Your task to perform on an android device: Open calendar and show me the fourth week of next month Image 0: 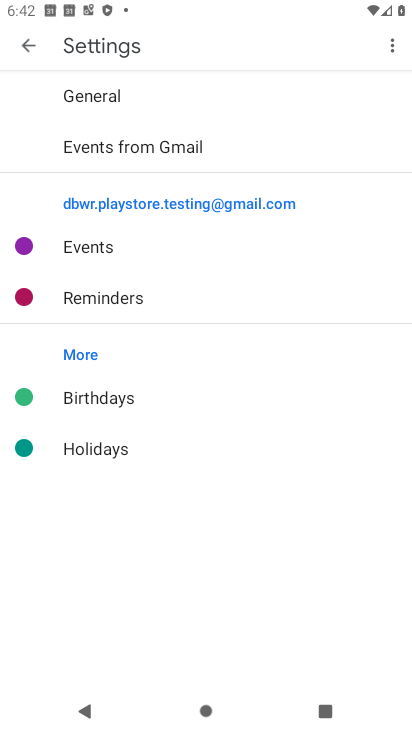
Step 0: press home button
Your task to perform on an android device: Open calendar and show me the fourth week of next month Image 1: 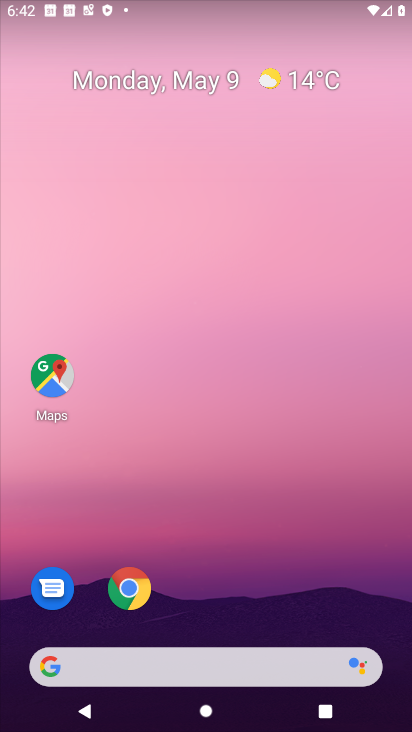
Step 1: drag from (253, 572) to (265, 6)
Your task to perform on an android device: Open calendar and show me the fourth week of next month Image 2: 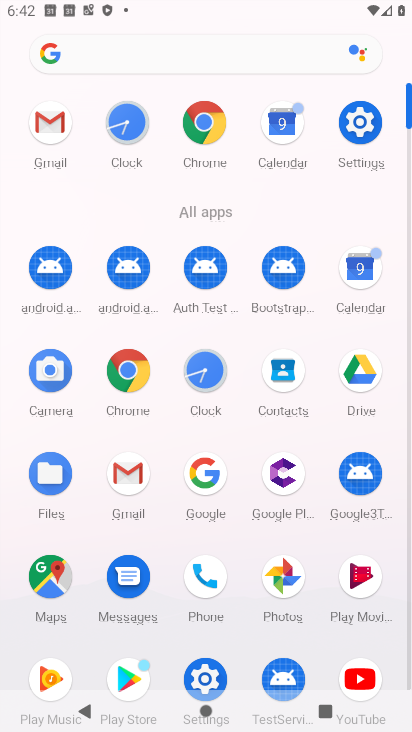
Step 2: click (361, 276)
Your task to perform on an android device: Open calendar and show me the fourth week of next month Image 3: 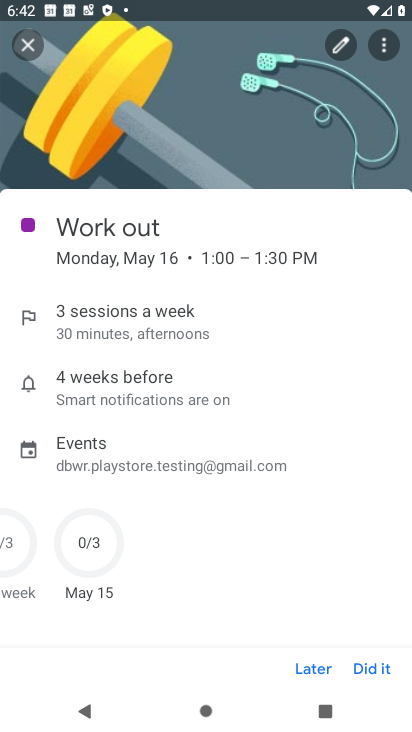
Step 3: click (81, 706)
Your task to perform on an android device: Open calendar and show me the fourth week of next month Image 4: 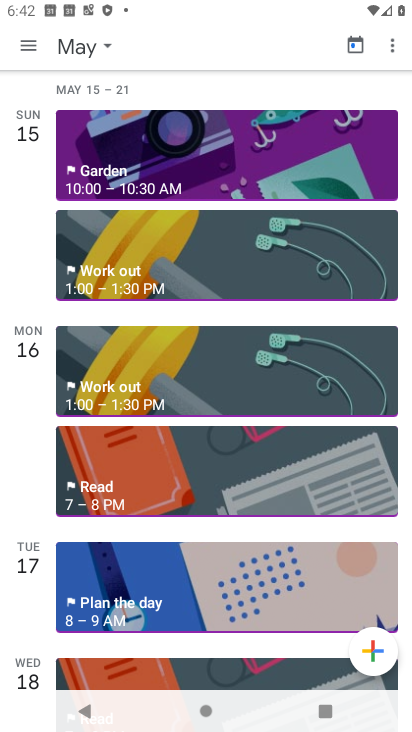
Step 4: press back button
Your task to perform on an android device: Open calendar and show me the fourth week of next month Image 5: 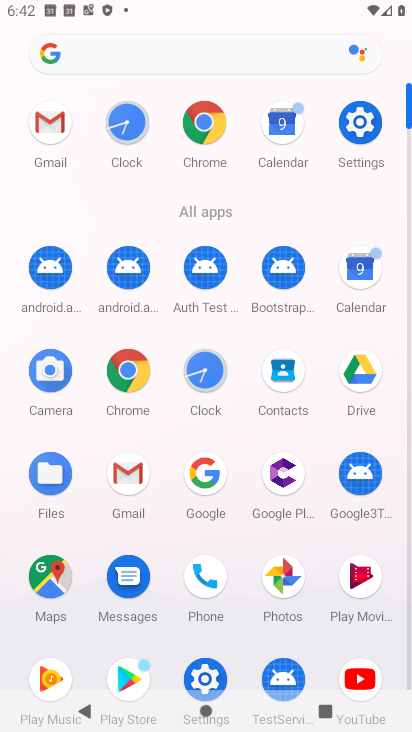
Step 5: click (379, 268)
Your task to perform on an android device: Open calendar and show me the fourth week of next month Image 6: 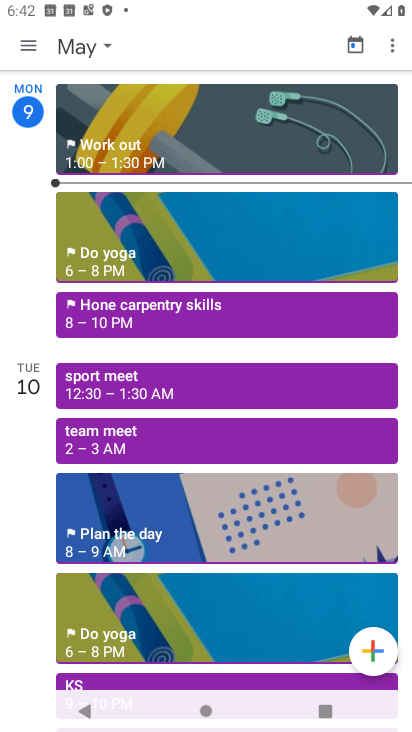
Step 6: click (73, 48)
Your task to perform on an android device: Open calendar and show me the fourth week of next month Image 7: 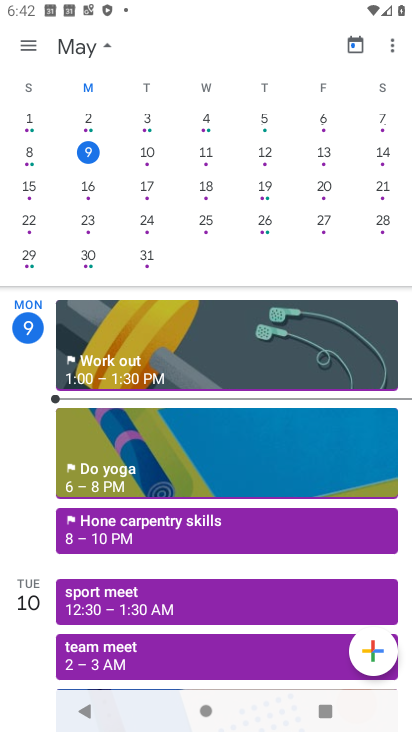
Step 7: drag from (301, 235) to (5, 194)
Your task to perform on an android device: Open calendar and show me the fourth week of next month Image 8: 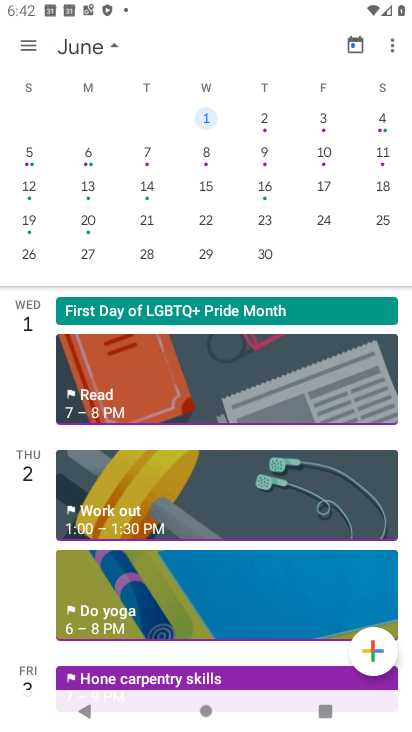
Step 8: click (84, 221)
Your task to perform on an android device: Open calendar and show me the fourth week of next month Image 9: 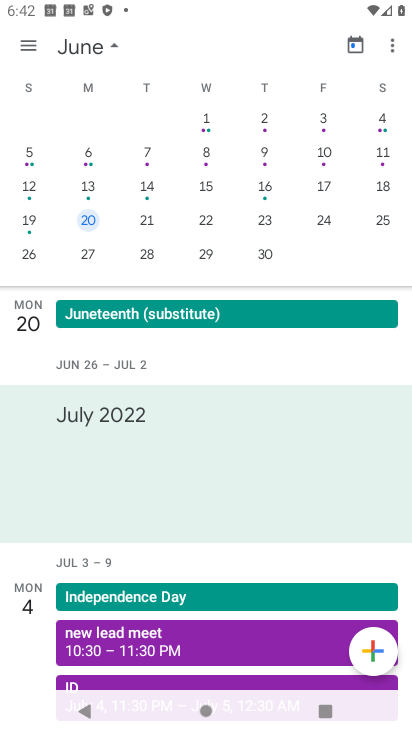
Step 9: click (146, 252)
Your task to perform on an android device: Open calendar and show me the fourth week of next month Image 10: 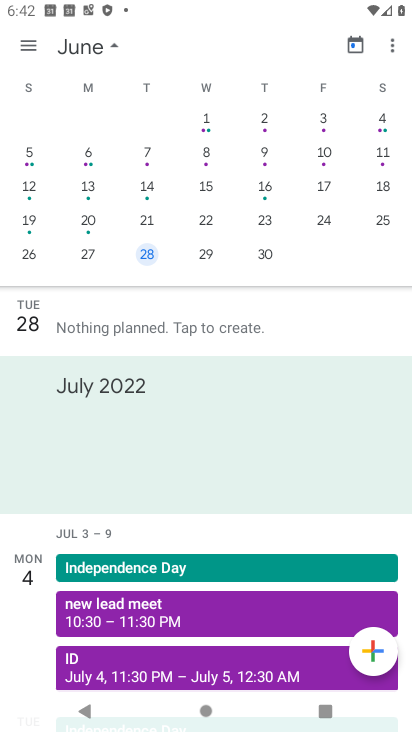
Step 10: task complete